Your task to perform on an android device: empty trash in google photos Image 0: 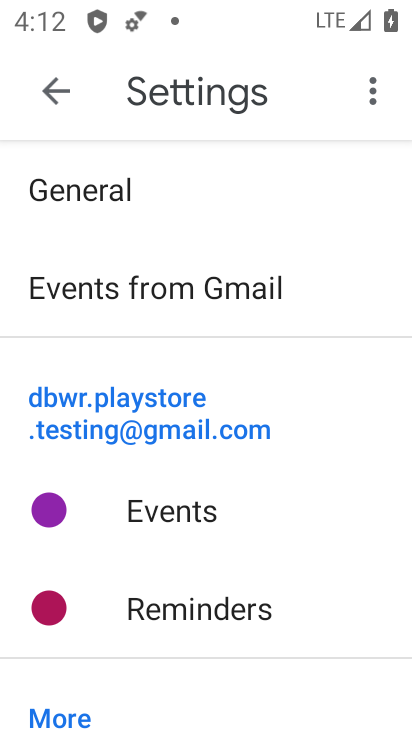
Step 0: press home button
Your task to perform on an android device: empty trash in google photos Image 1: 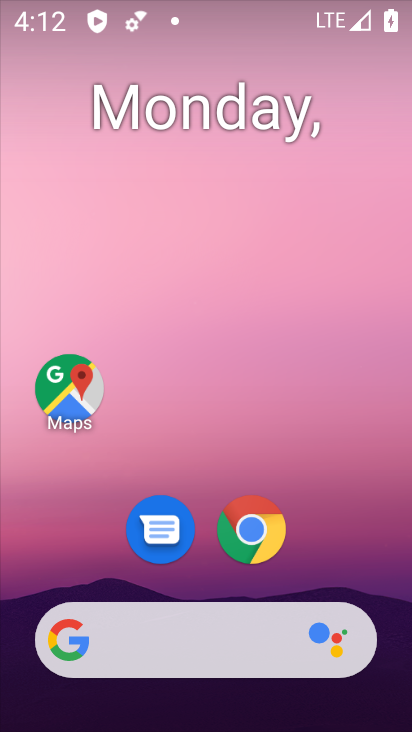
Step 1: drag from (209, 527) to (223, 7)
Your task to perform on an android device: empty trash in google photos Image 2: 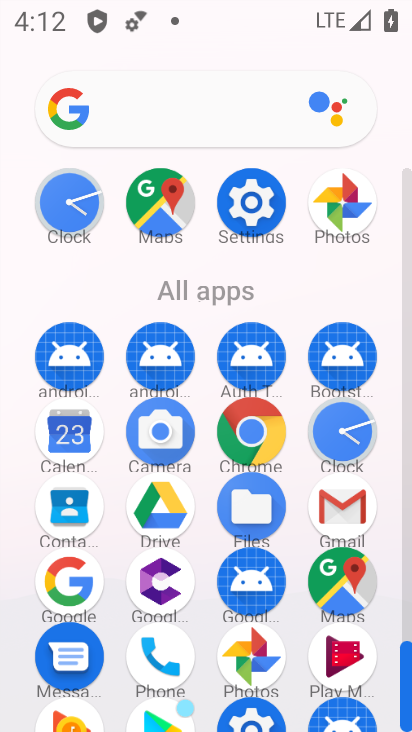
Step 2: click (350, 194)
Your task to perform on an android device: empty trash in google photos Image 3: 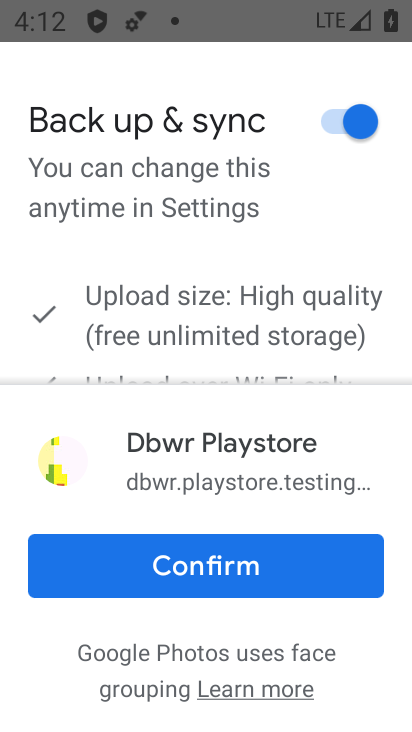
Step 3: click (196, 575)
Your task to perform on an android device: empty trash in google photos Image 4: 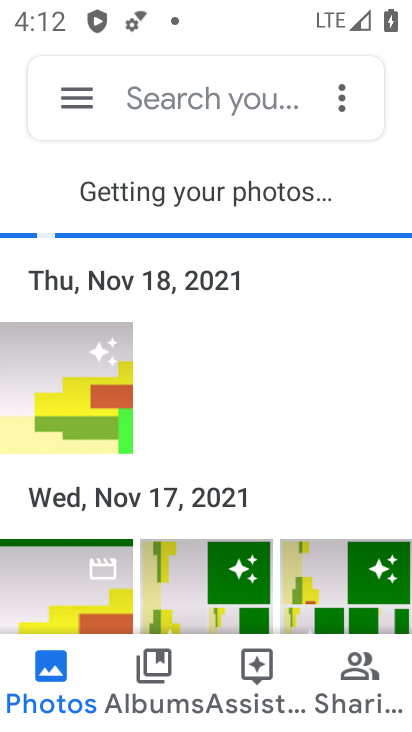
Step 4: click (71, 87)
Your task to perform on an android device: empty trash in google photos Image 5: 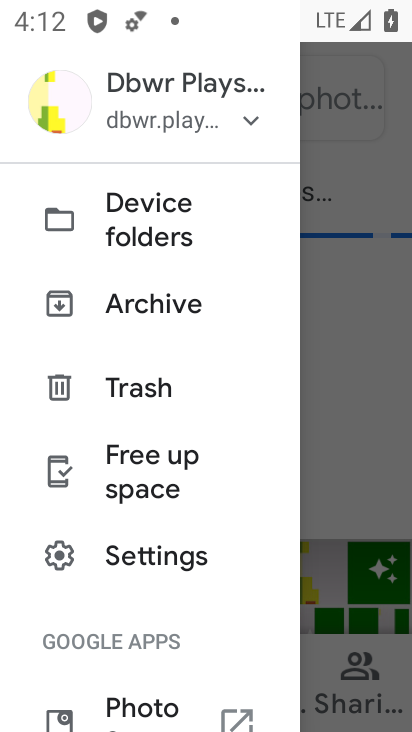
Step 5: click (144, 393)
Your task to perform on an android device: empty trash in google photos Image 6: 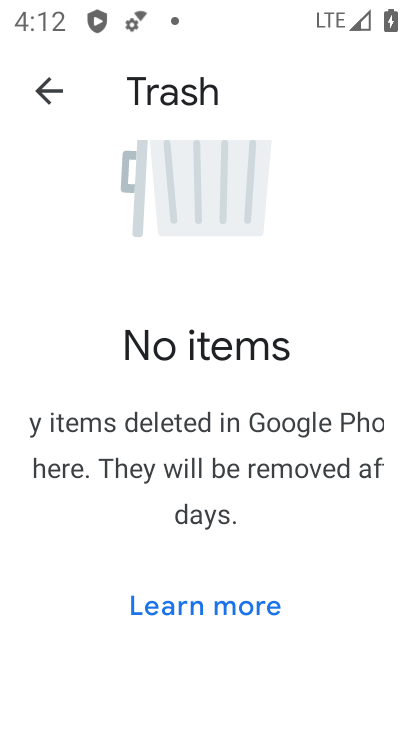
Step 6: task complete